Your task to perform on an android device: read, delete, or share a saved page in the chrome app Image 0: 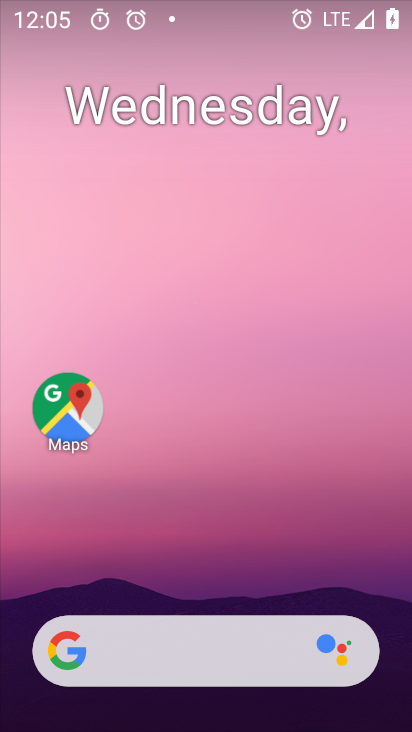
Step 0: drag from (173, 627) to (235, 257)
Your task to perform on an android device: read, delete, or share a saved page in the chrome app Image 1: 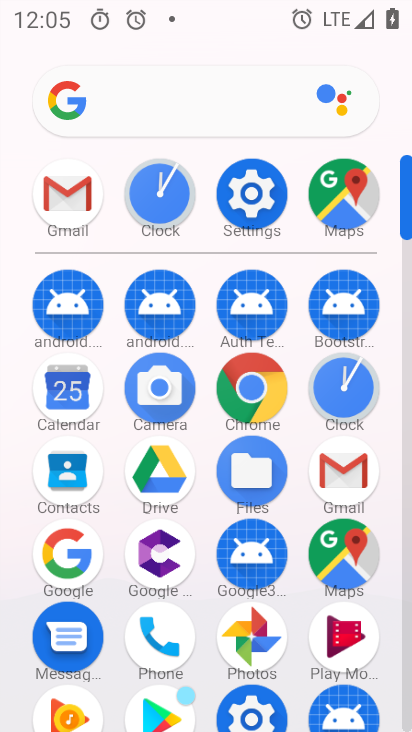
Step 1: click (248, 394)
Your task to perform on an android device: read, delete, or share a saved page in the chrome app Image 2: 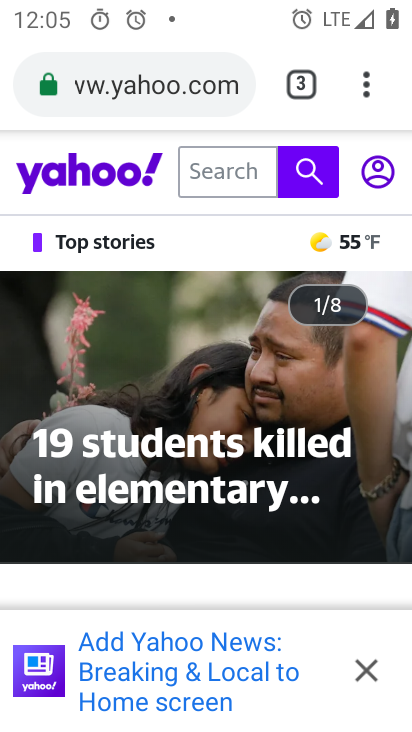
Step 2: task complete